Your task to perform on an android device: Go to Amazon Image 0: 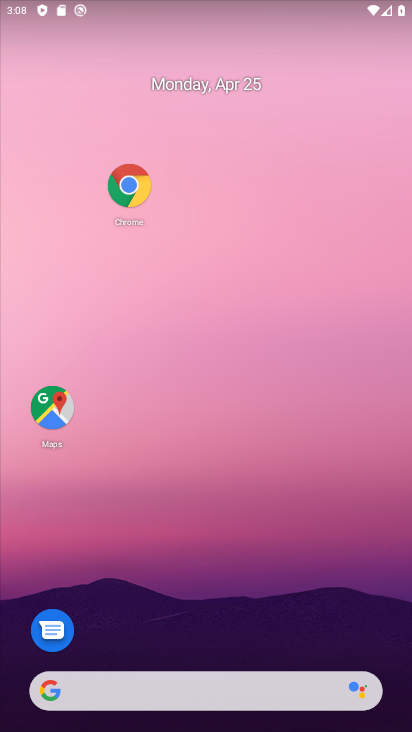
Step 0: click (133, 184)
Your task to perform on an android device: Go to Amazon Image 1: 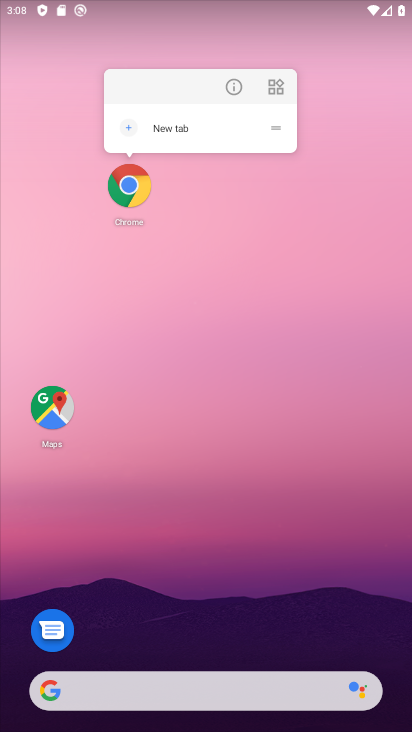
Step 1: click (241, 84)
Your task to perform on an android device: Go to Amazon Image 2: 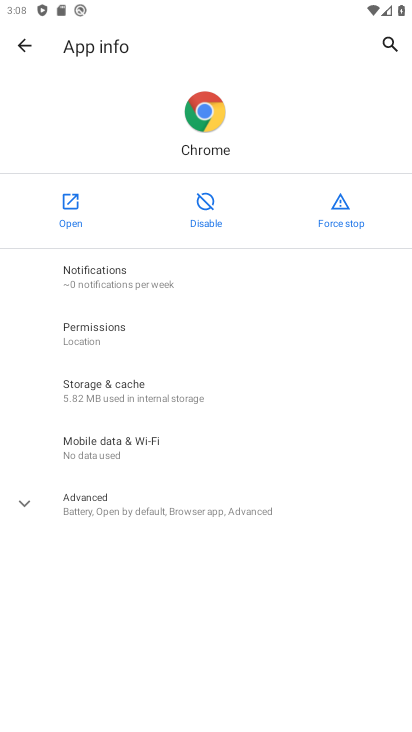
Step 2: click (57, 204)
Your task to perform on an android device: Go to Amazon Image 3: 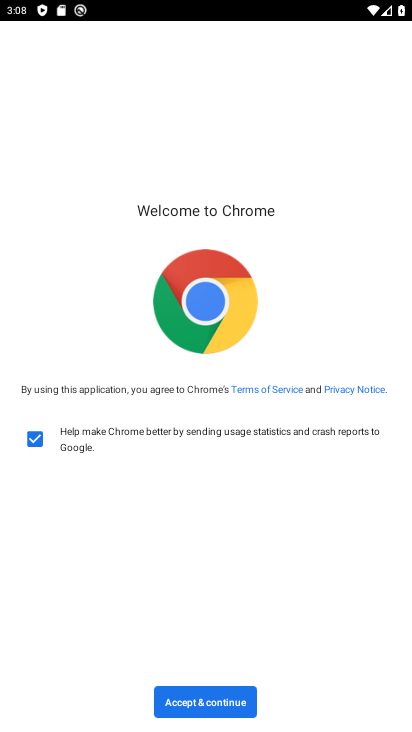
Step 3: click (178, 703)
Your task to perform on an android device: Go to Amazon Image 4: 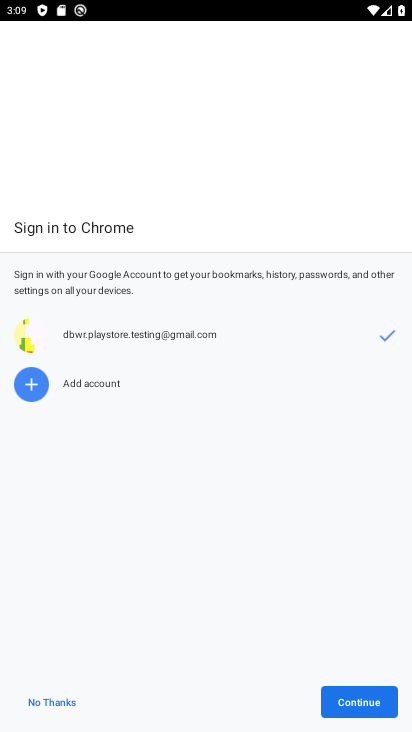
Step 4: click (364, 705)
Your task to perform on an android device: Go to Amazon Image 5: 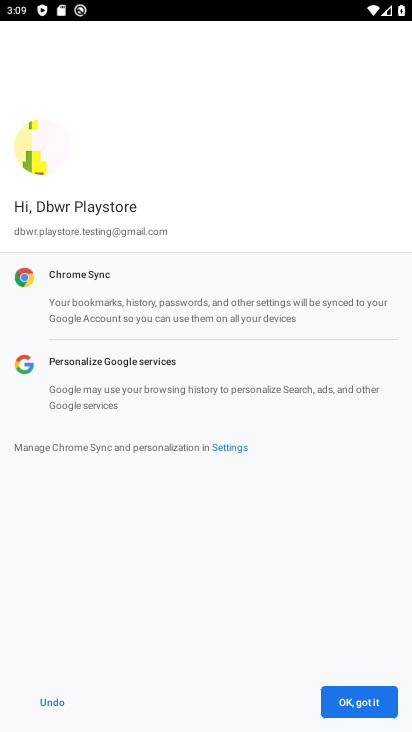
Step 5: click (372, 707)
Your task to perform on an android device: Go to Amazon Image 6: 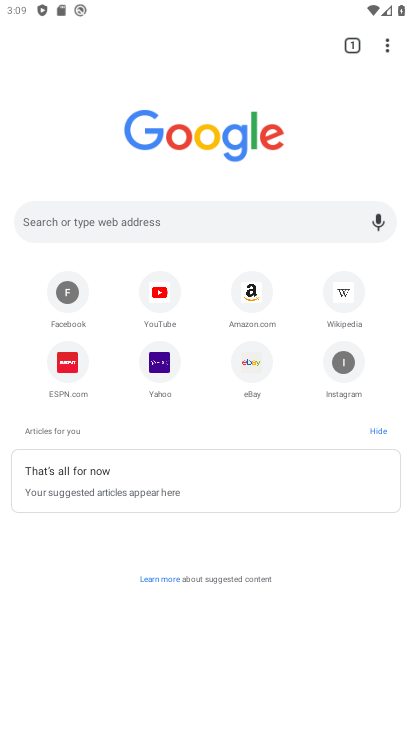
Step 6: click (129, 217)
Your task to perform on an android device: Go to Amazon Image 7: 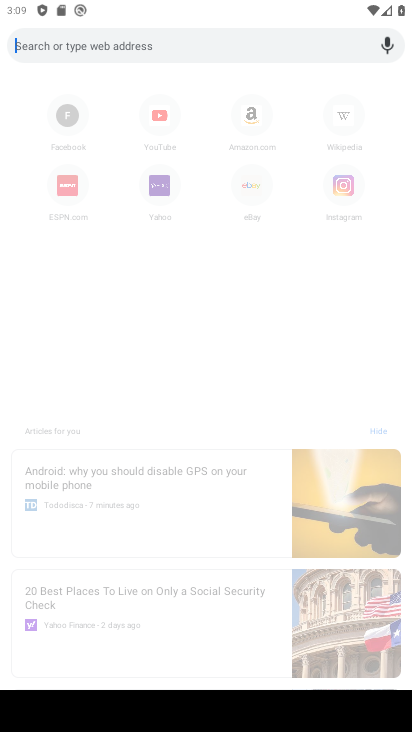
Step 7: type "Amazon"
Your task to perform on an android device: Go to Amazon Image 8: 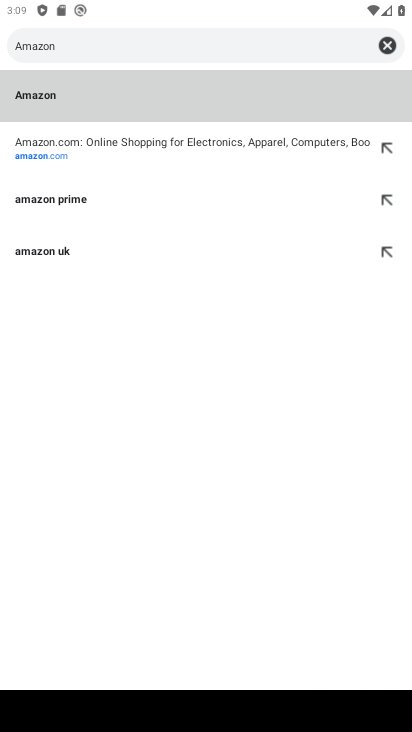
Step 8: click (138, 97)
Your task to perform on an android device: Go to Amazon Image 9: 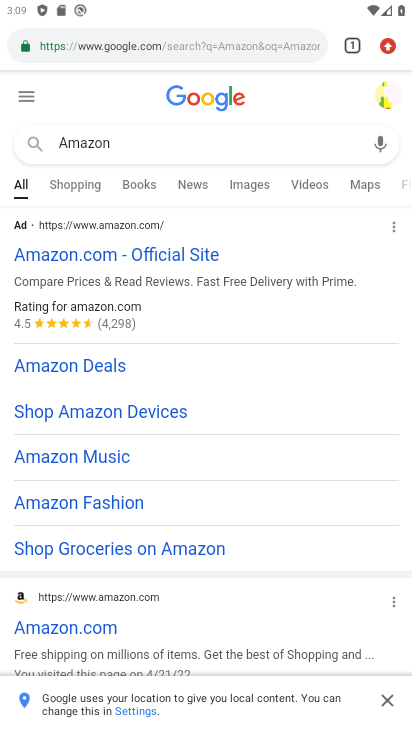
Step 9: task complete